Your task to perform on an android device: What is the news today? Image 0: 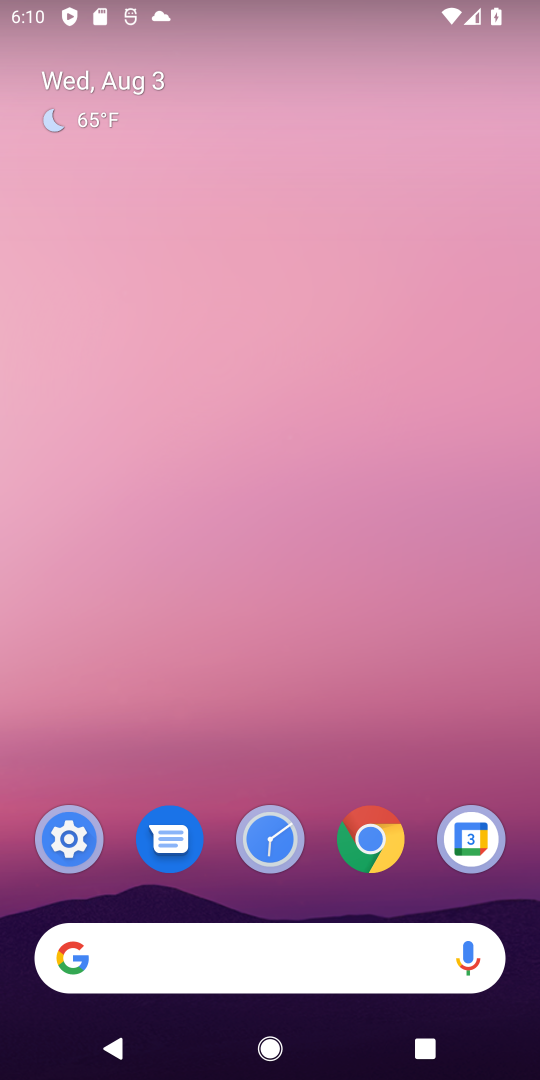
Step 0: click (219, 956)
Your task to perform on an android device: What is the news today? Image 1: 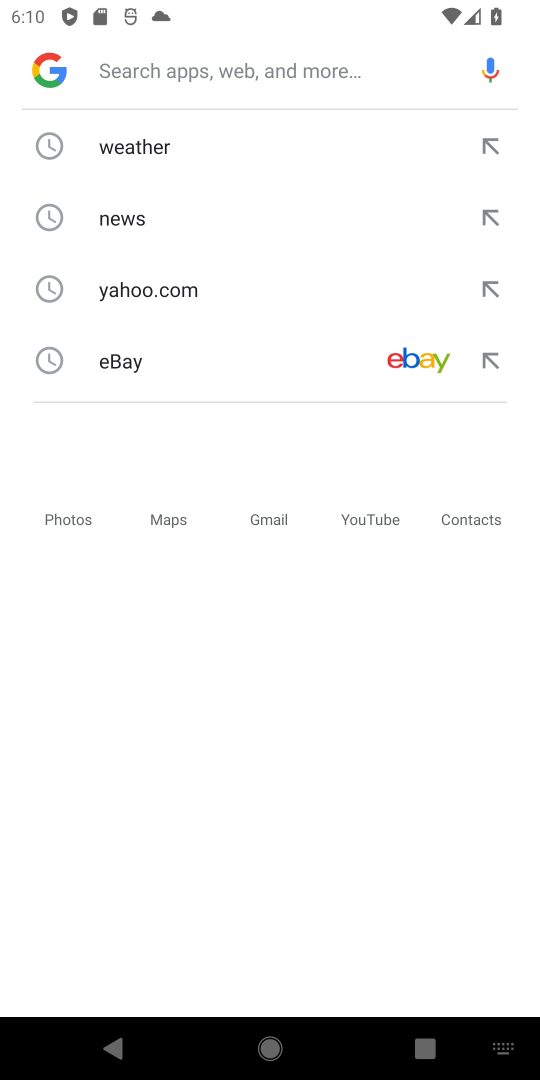
Step 1: click (174, 62)
Your task to perform on an android device: What is the news today? Image 2: 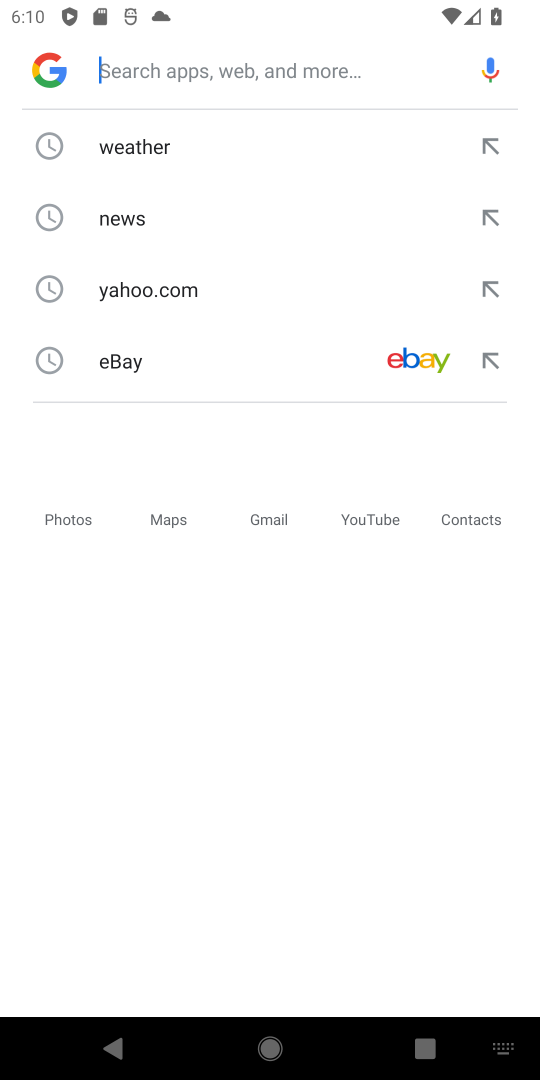
Step 2: type "news today"
Your task to perform on an android device: What is the news today? Image 3: 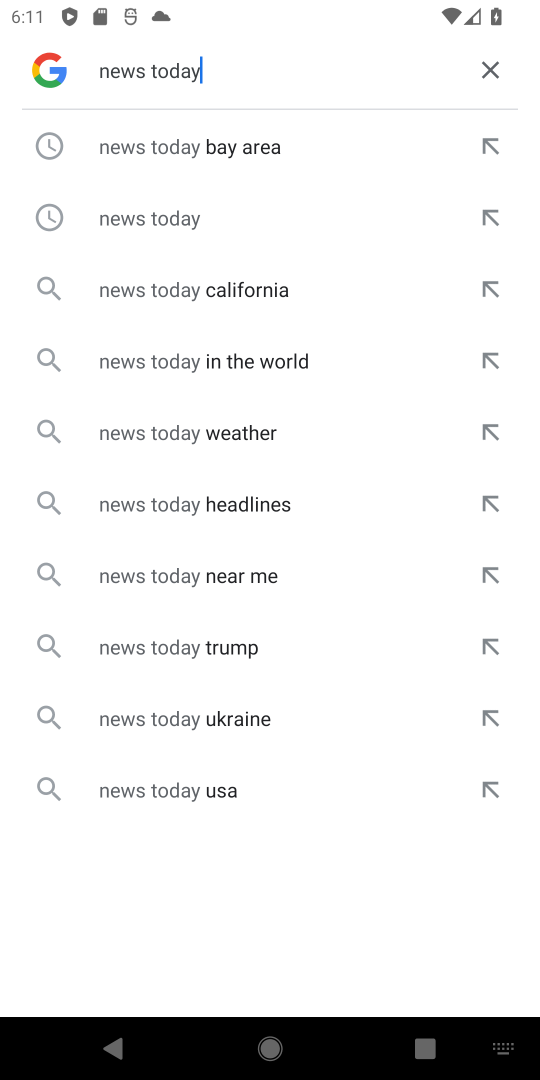
Step 3: click (147, 215)
Your task to perform on an android device: What is the news today? Image 4: 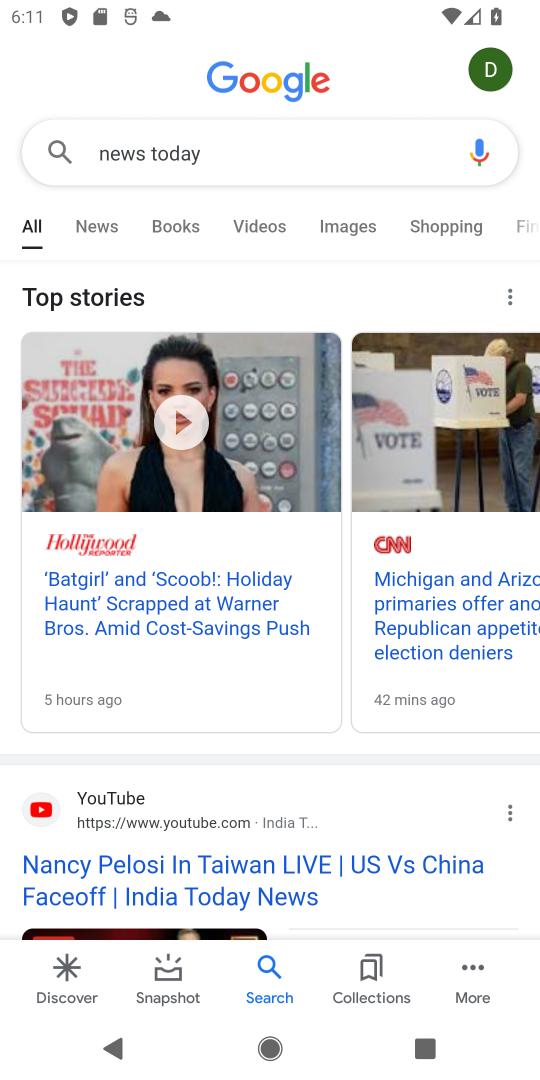
Step 4: task complete